Your task to perform on an android device: Go to network settings Image 0: 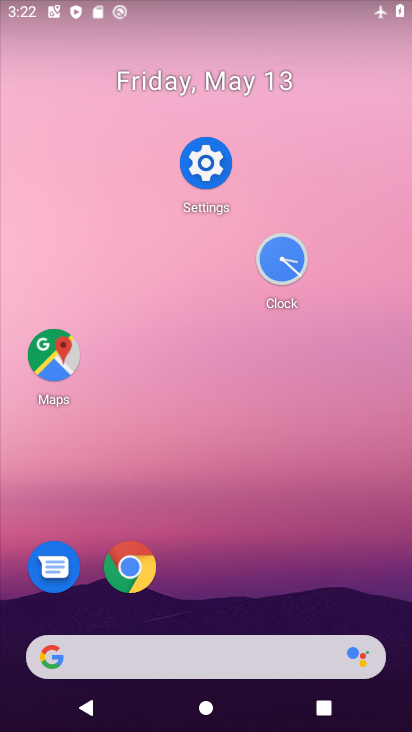
Step 0: drag from (284, 563) to (255, 192)
Your task to perform on an android device: Go to network settings Image 1: 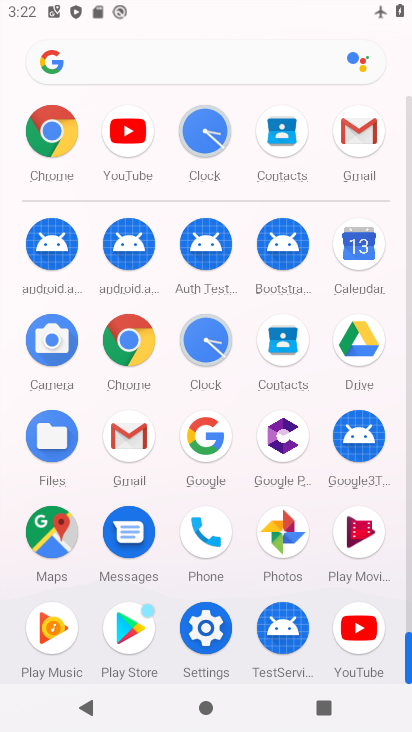
Step 1: click (217, 646)
Your task to perform on an android device: Go to network settings Image 2: 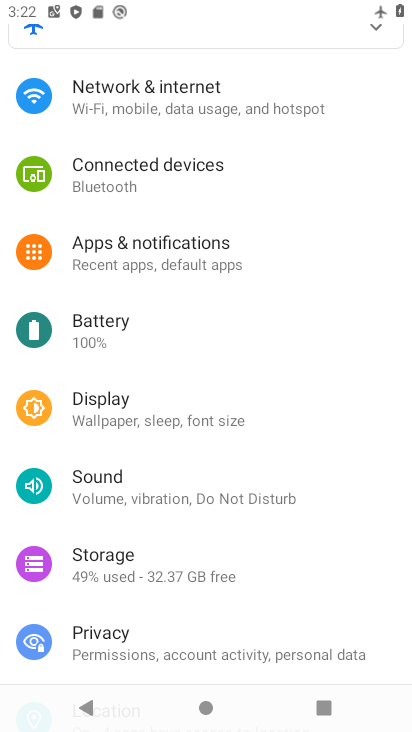
Step 2: click (157, 117)
Your task to perform on an android device: Go to network settings Image 3: 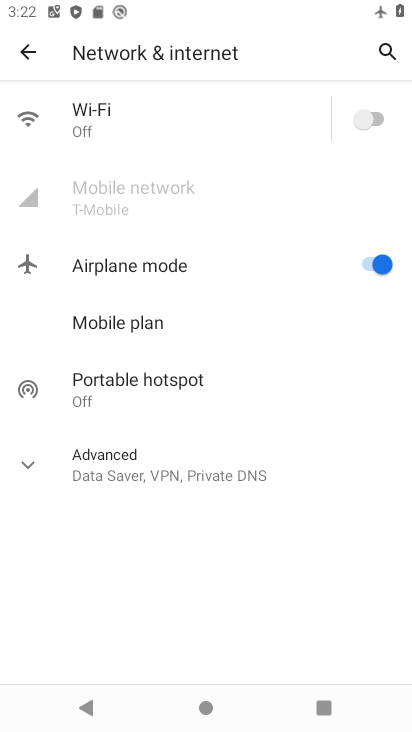
Step 3: task complete